Your task to perform on an android device: Is it going to rain today? Image 0: 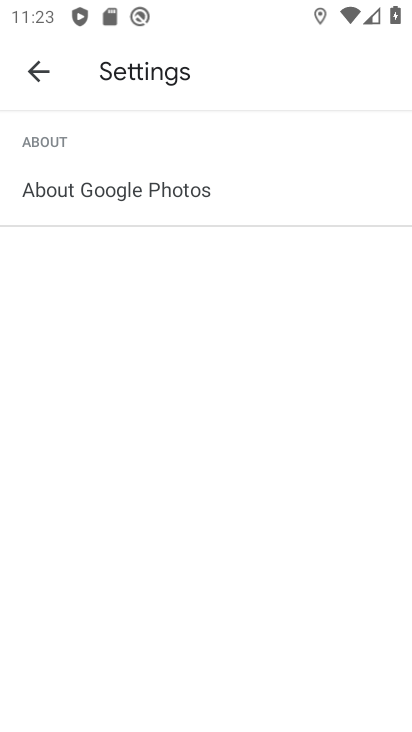
Step 0: press home button
Your task to perform on an android device: Is it going to rain today? Image 1: 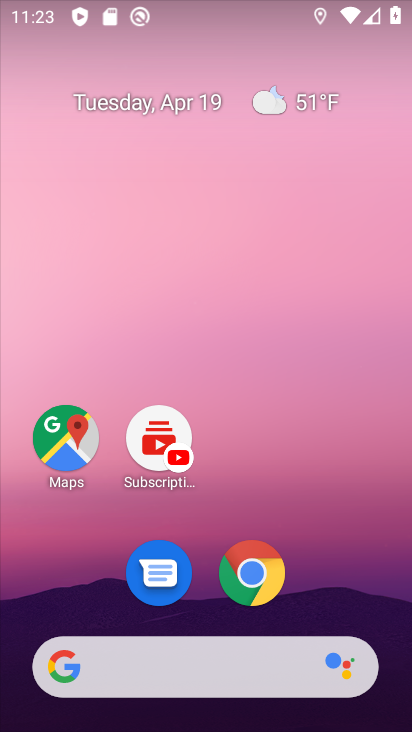
Step 1: click (251, 573)
Your task to perform on an android device: Is it going to rain today? Image 2: 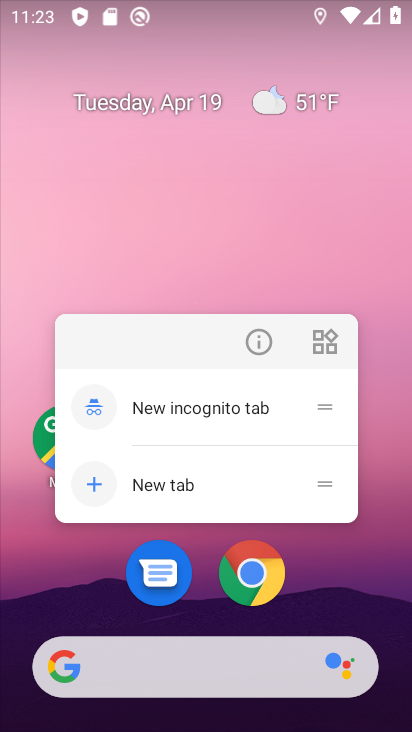
Step 2: click (251, 573)
Your task to perform on an android device: Is it going to rain today? Image 3: 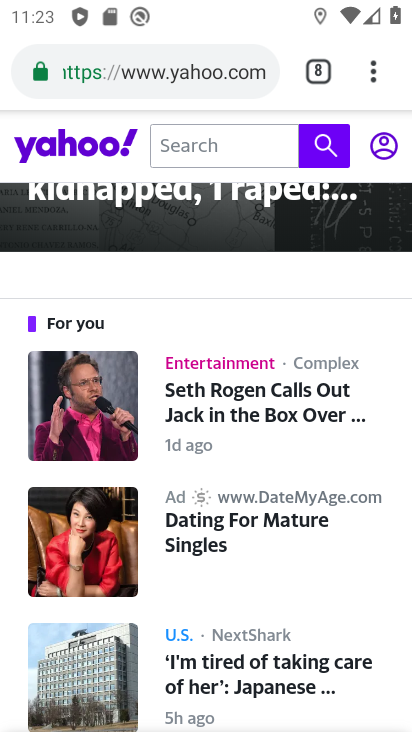
Step 3: click (325, 72)
Your task to perform on an android device: Is it going to rain today? Image 4: 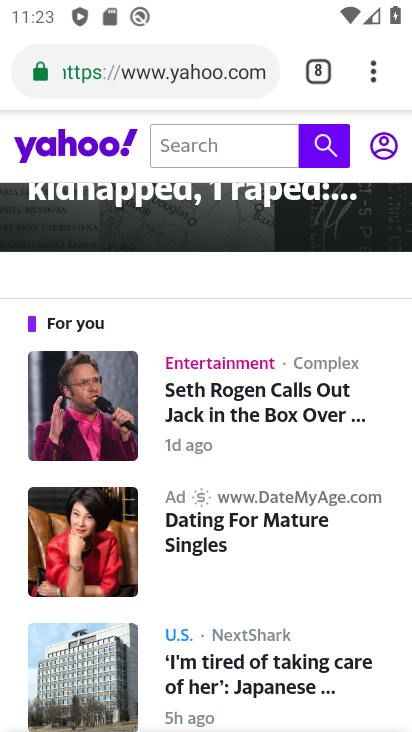
Step 4: click (324, 75)
Your task to perform on an android device: Is it going to rain today? Image 5: 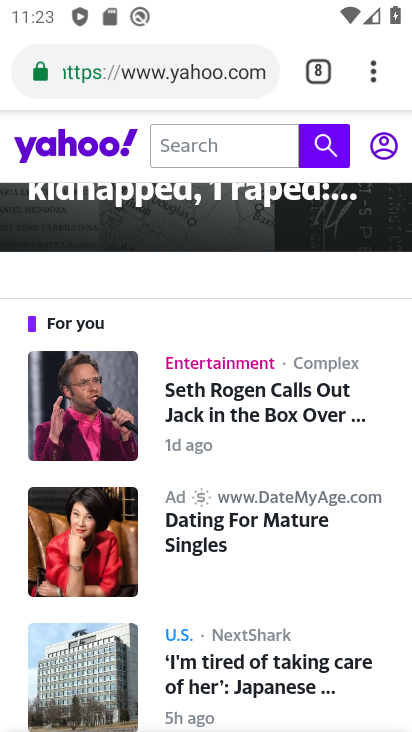
Step 5: click (322, 68)
Your task to perform on an android device: Is it going to rain today? Image 6: 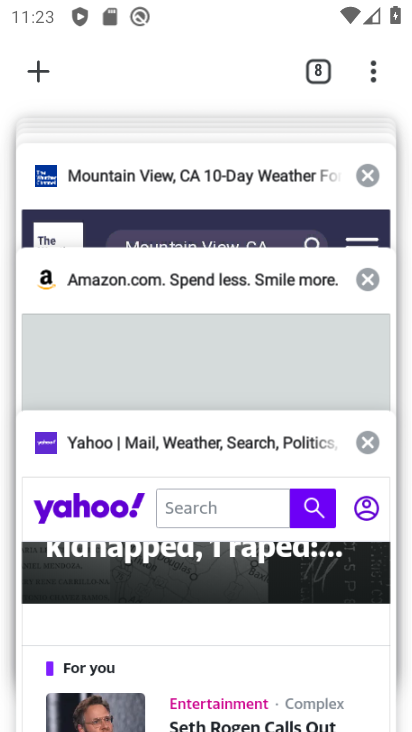
Step 6: drag from (162, 218) to (129, 524)
Your task to perform on an android device: Is it going to rain today? Image 7: 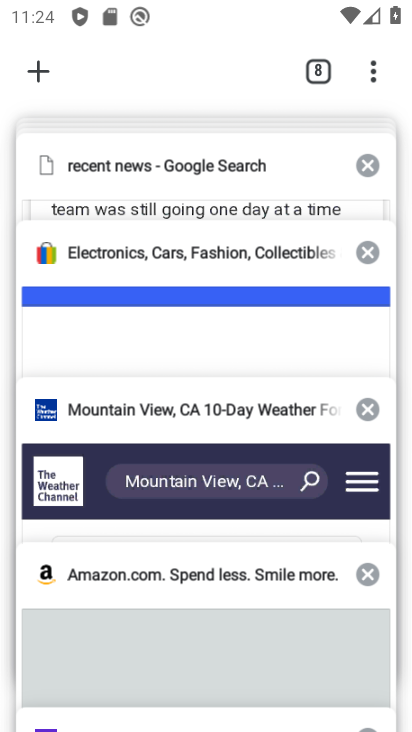
Step 7: drag from (101, 215) to (137, 497)
Your task to perform on an android device: Is it going to rain today? Image 8: 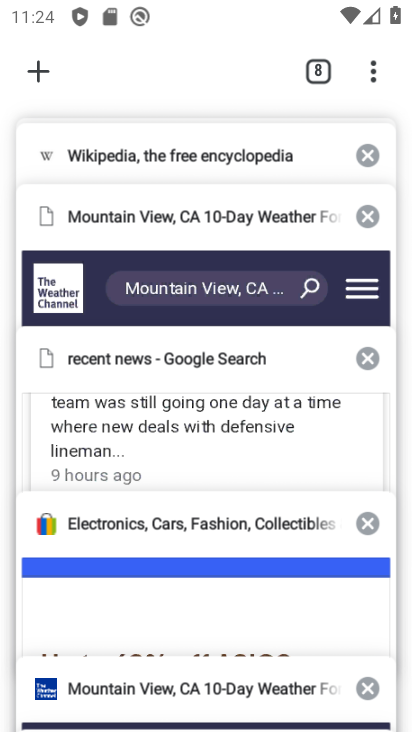
Step 8: drag from (118, 189) to (140, 418)
Your task to perform on an android device: Is it going to rain today? Image 9: 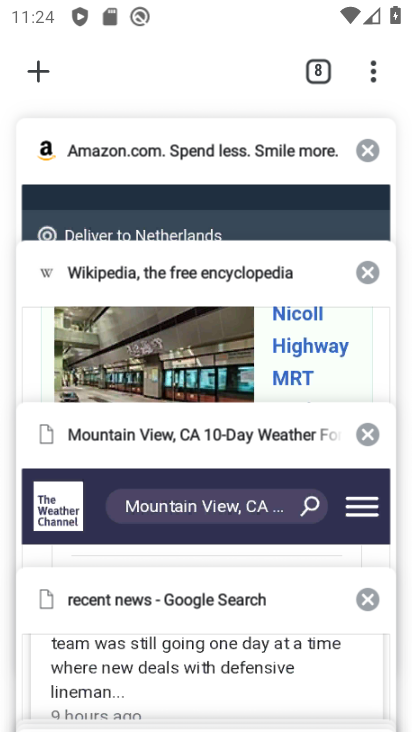
Step 9: drag from (133, 161) to (124, 417)
Your task to perform on an android device: Is it going to rain today? Image 10: 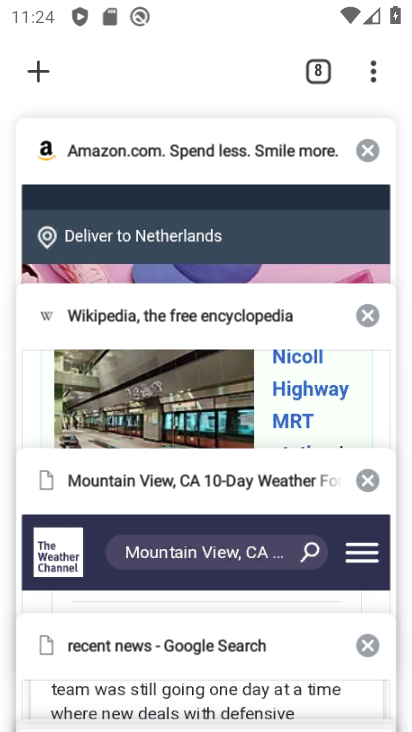
Step 10: click (31, 69)
Your task to perform on an android device: Is it going to rain today? Image 11: 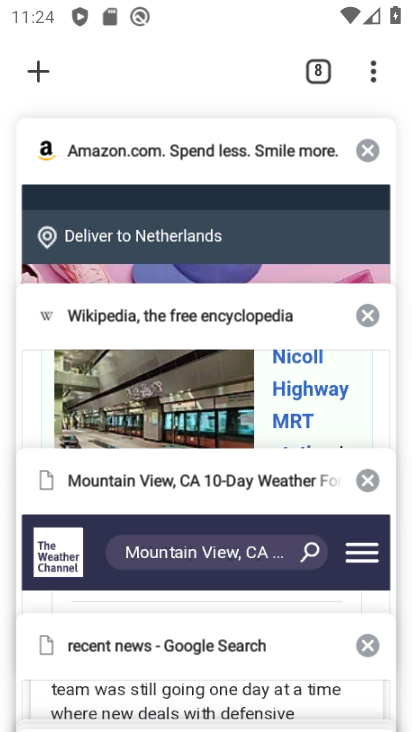
Step 11: click (38, 64)
Your task to perform on an android device: Is it going to rain today? Image 12: 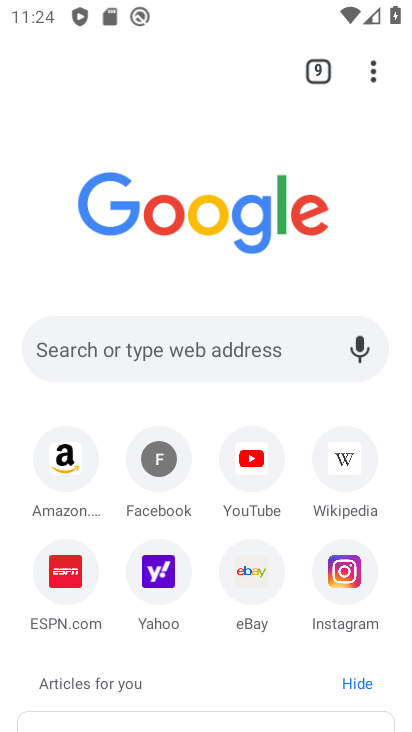
Step 12: click (105, 332)
Your task to perform on an android device: Is it going to rain today? Image 13: 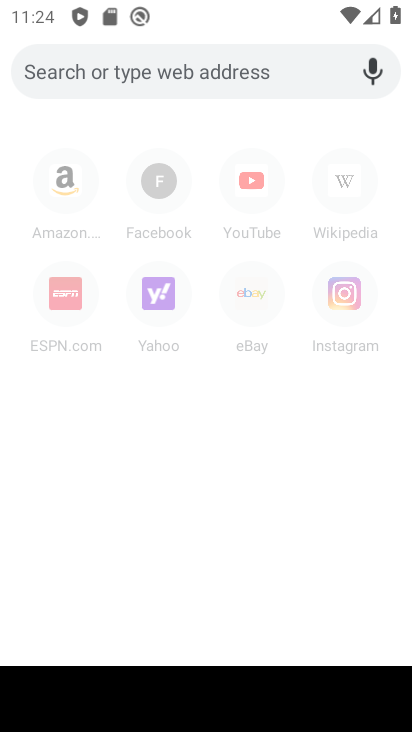
Step 13: type "is it going to rain today"
Your task to perform on an android device: Is it going to rain today? Image 14: 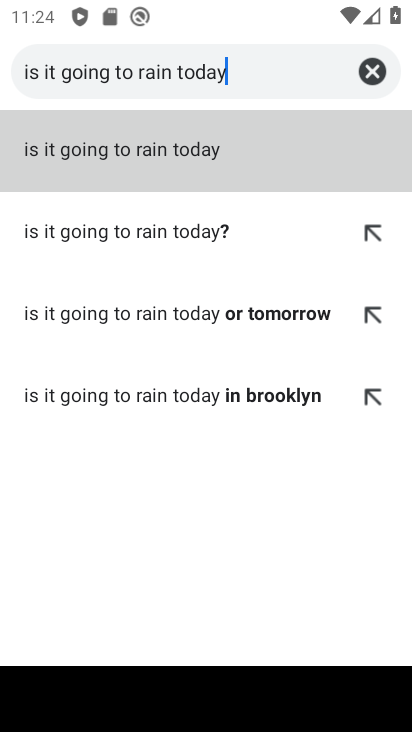
Step 14: click (173, 231)
Your task to perform on an android device: Is it going to rain today? Image 15: 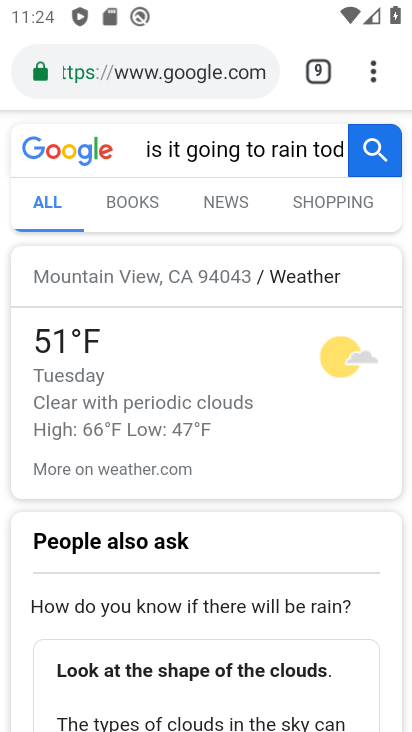
Step 15: task complete